Your task to perform on an android device: Open settings Image 0: 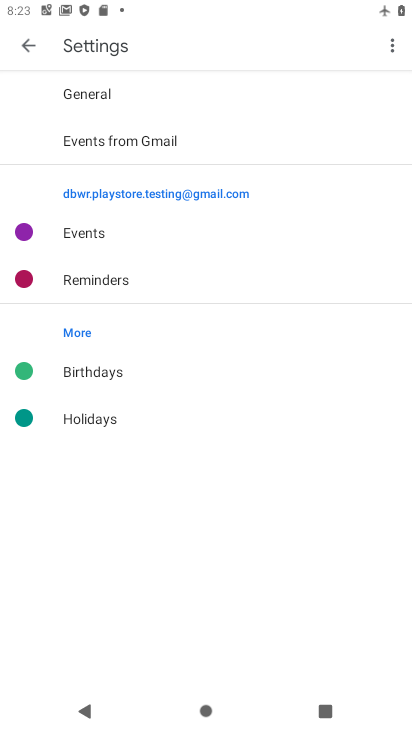
Step 0: press home button
Your task to perform on an android device: Open settings Image 1: 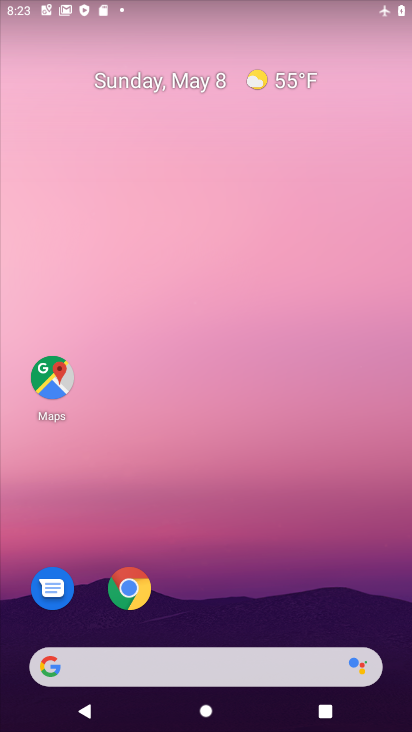
Step 1: drag from (352, 625) to (285, 116)
Your task to perform on an android device: Open settings Image 2: 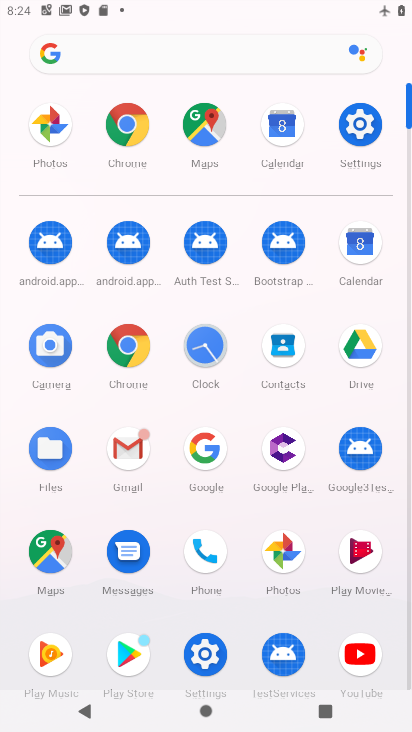
Step 2: click (177, 657)
Your task to perform on an android device: Open settings Image 3: 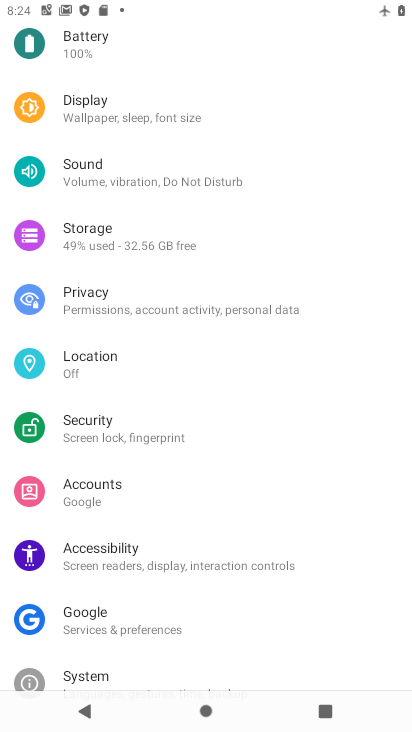
Step 3: task complete